Your task to perform on an android device: allow notifications from all sites in the chrome app Image 0: 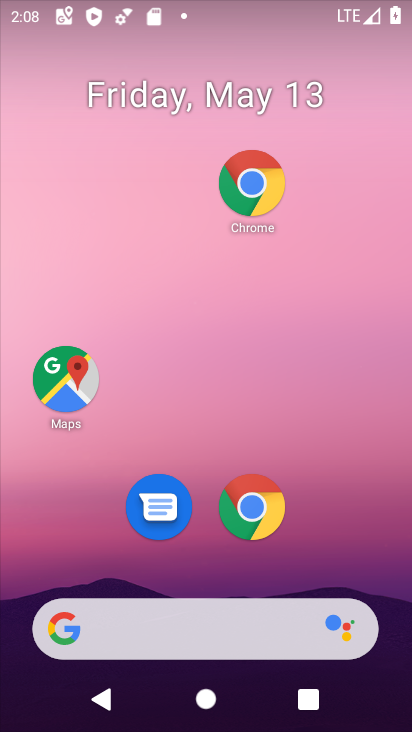
Step 0: drag from (385, 591) to (172, 107)
Your task to perform on an android device: allow notifications from all sites in the chrome app Image 1: 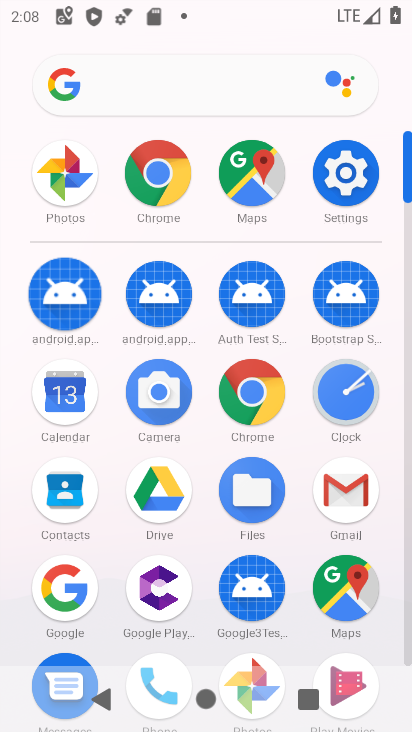
Step 1: click (167, 179)
Your task to perform on an android device: allow notifications from all sites in the chrome app Image 2: 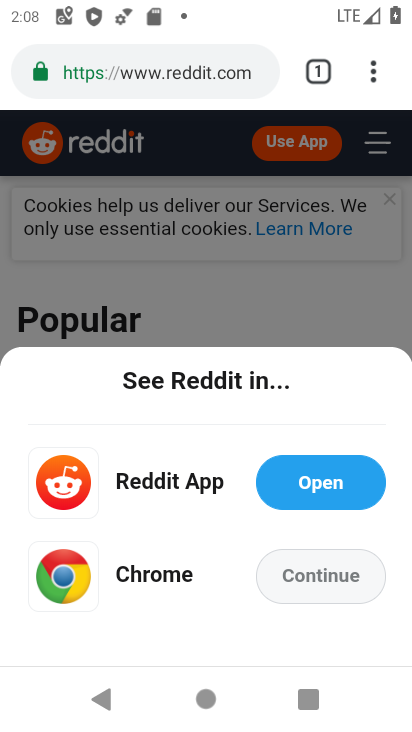
Step 2: drag from (377, 78) to (168, 485)
Your task to perform on an android device: allow notifications from all sites in the chrome app Image 3: 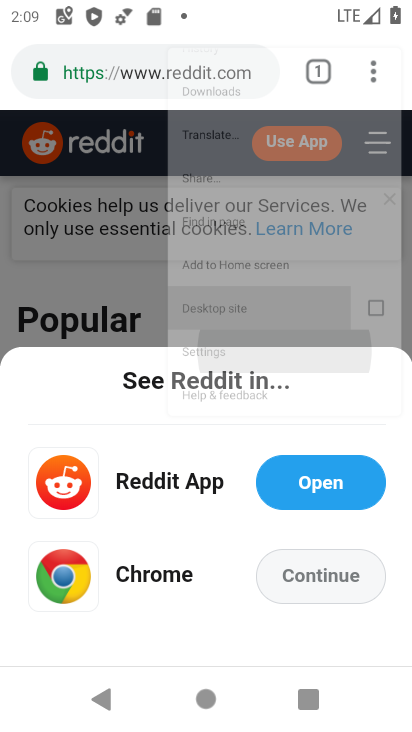
Step 3: drag from (167, 509) to (132, 492)
Your task to perform on an android device: allow notifications from all sites in the chrome app Image 4: 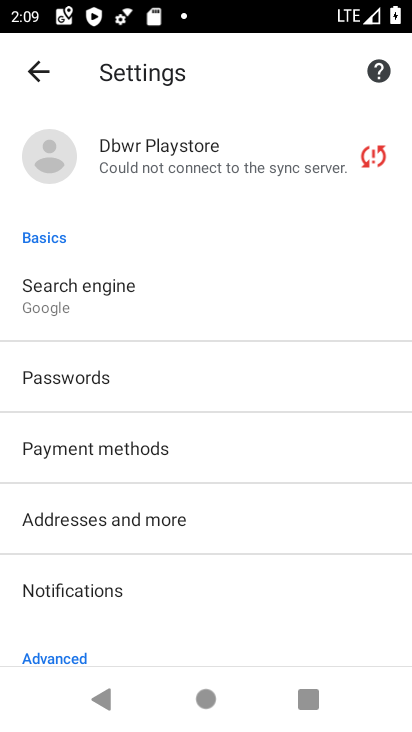
Step 4: drag from (87, 563) to (45, 207)
Your task to perform on an android device: allow notifications from all sites in the chrome app Image 5: 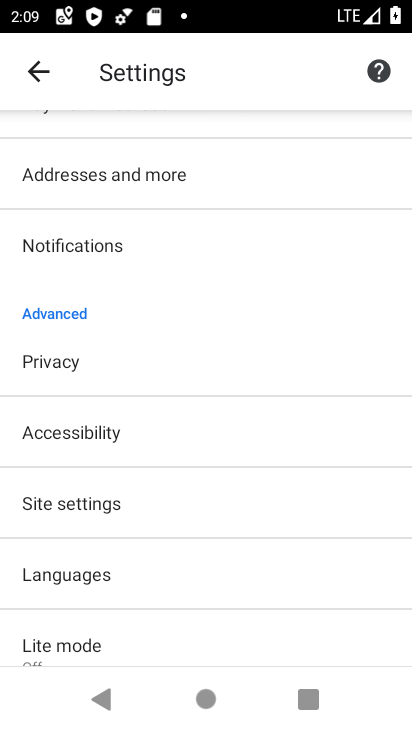
Step 5: click (90, 502)
Your task to perform on an android device: allow notifications from all sites in the chrome app Image 6: 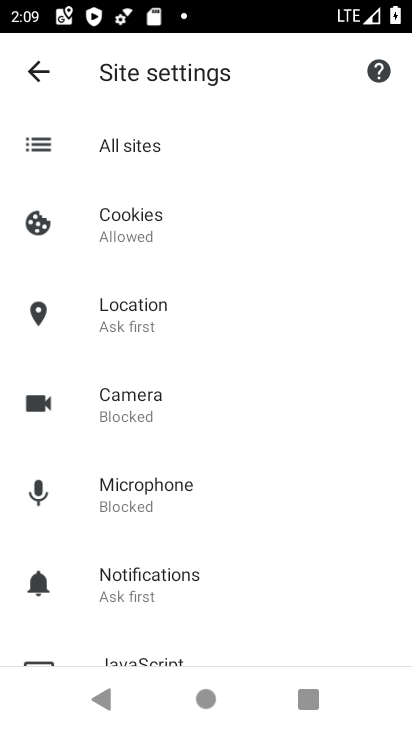
Step 6: click (112, 152)
Your task to perform on an android device: allow notifications from all sites in the chrome app Image 7: 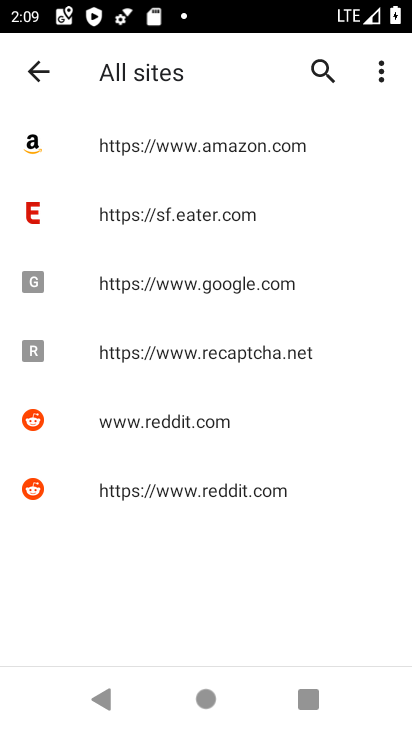
Step 7: click (210, 151)
Your task to perform on an android device: allow notifications from all sites in the chrome app Image 8: 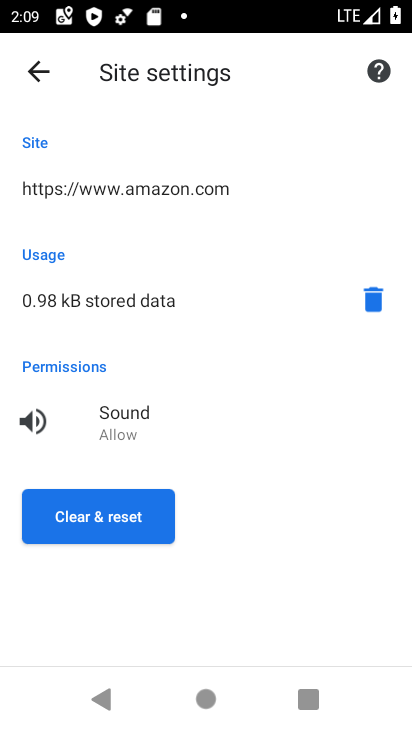
Step 8: click (119, 188)
Your task to perform on an android device: allow notifications from all sites in the chrome app Image 9: 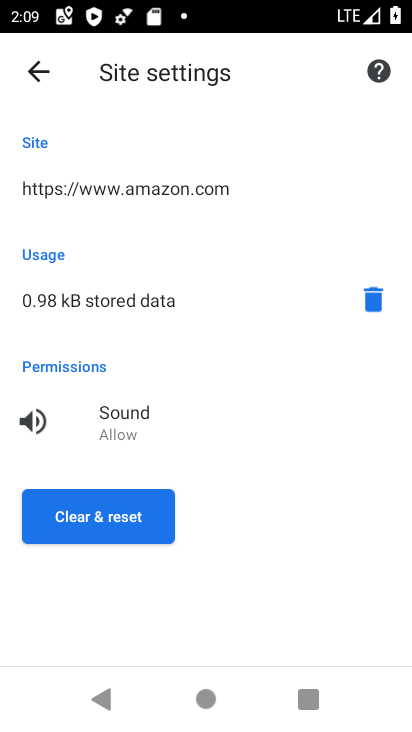
Step 9: click (120, 187)
Your task to perform on an android device: allow notifications from all sites in the chrome app Image 10: 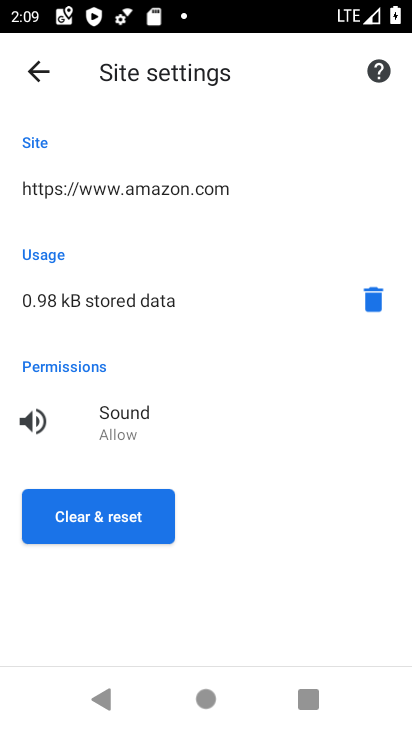
Step 10: click (98, 519)
Your task to perform on an android device: allow notifications from all sites in the chrome app Image 11: 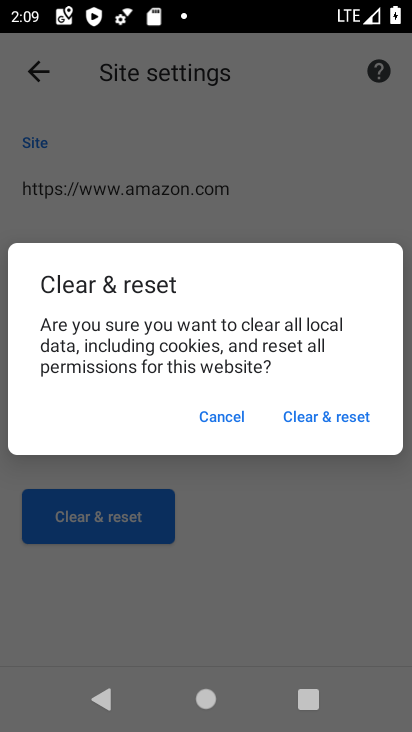
Step 11: click (250, 417)
Your task to perform on an android device: allow notifications from all sites in the chrome app Image 12: 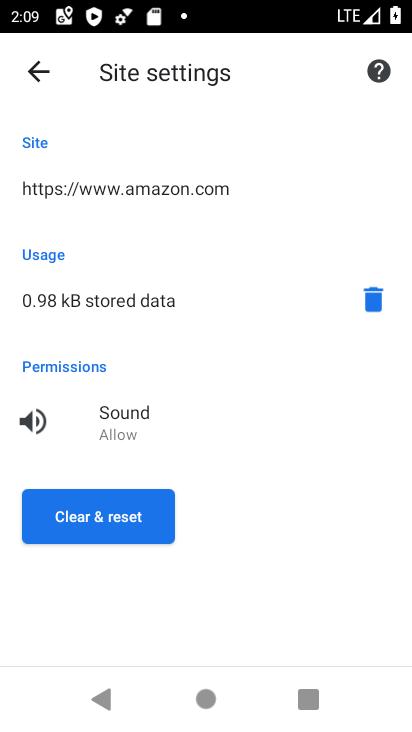
Step 12: click (97, 301)
Your task to perform on an android device: allow notifications from all sites in the chrome app Image 13: 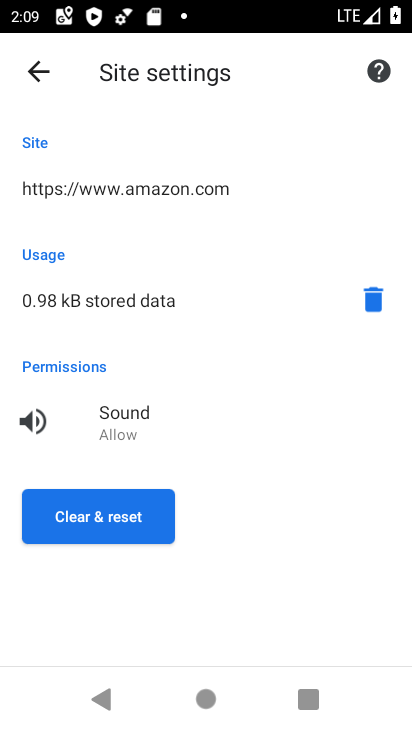
Step 13: click (29, 136)
Your task to perform on an android device: allow notifications from all sites in the chrome app Image 14: 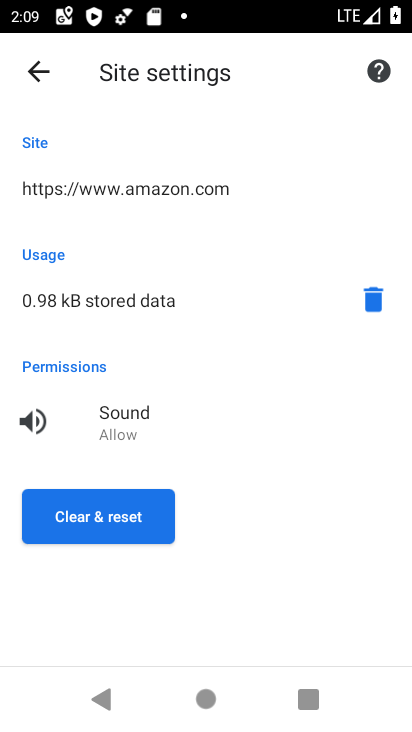
Step 14: click (29, 136)
Your task to perform on an android device: allow notifications from all sites in the chrome app Image 15: 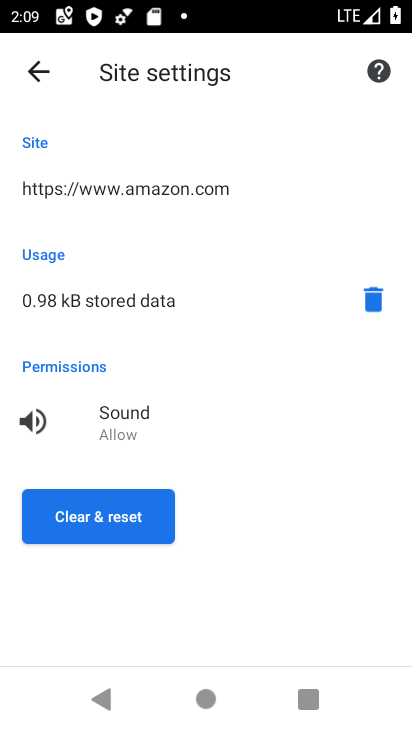
Step 15: click (29, 136)
Your task to perform on an android device: allow notifications from all sites in the chrome app Image 16: 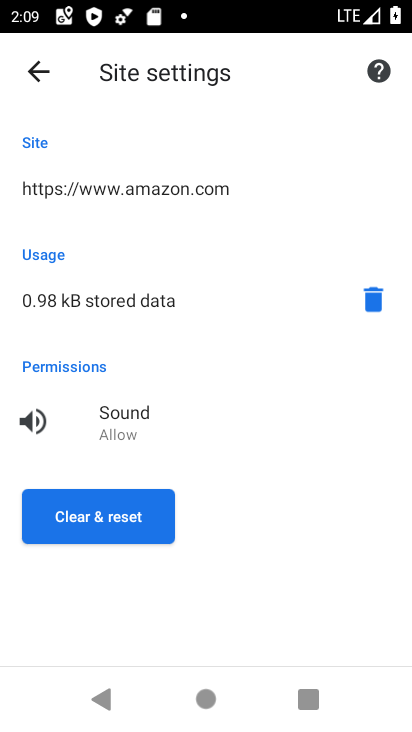
Step 16: click (30, 135)
Your task to perform on an android device: allow notifications from all sites in the chrome app Image 17: 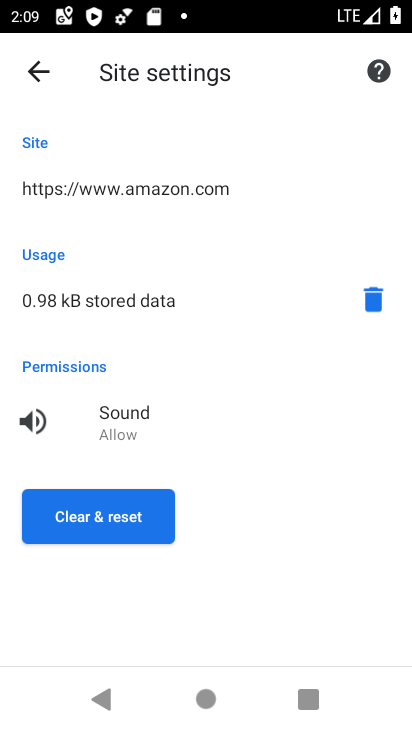
Step 17: click (32, 134)
Your task to perform on an android device: allow notifications from all sites in the chrome app Image 18: 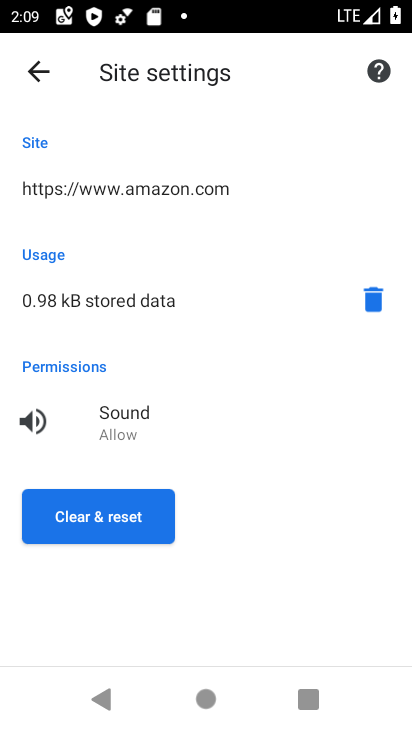
Step 18: click (33, 76)
Your task to perform on an android device: allow notifications from all sites in the chrome app Image 19: 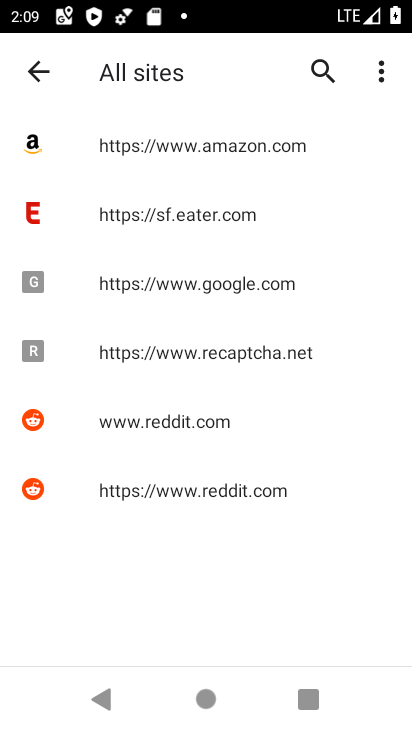
Step 19: click (385, 72)
Your task to perform on an android device: allow notifications from all sites in the chrome app Image 20: 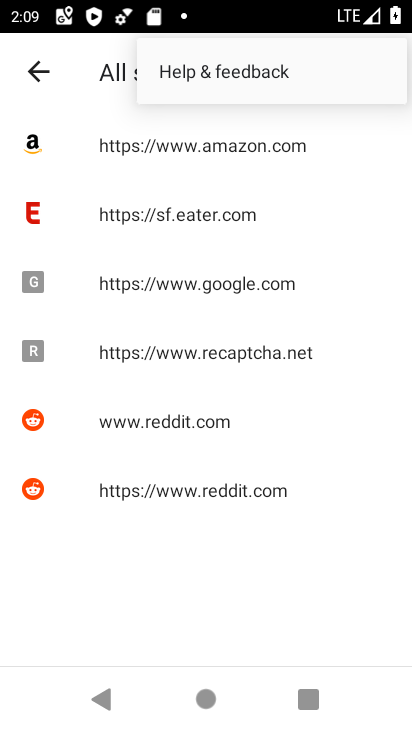
Step 20: click (362, 318)
Your task to perform on an android device: allow notifications from all sites in the chrome app Image 21: 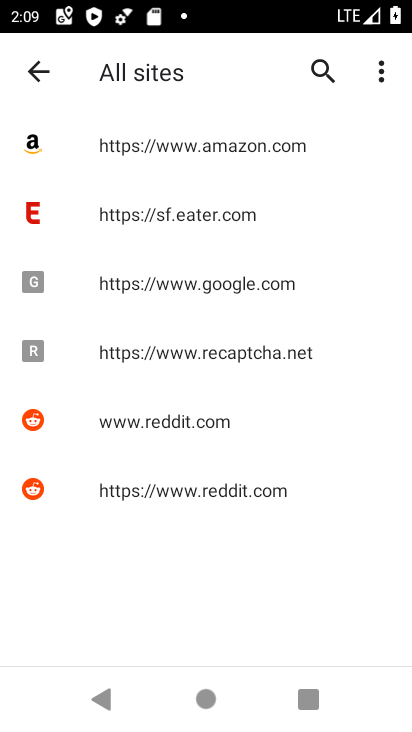
Step 21: task complete